Your task to perform on an android device: turn smart compose on in the gmail app Image 0: 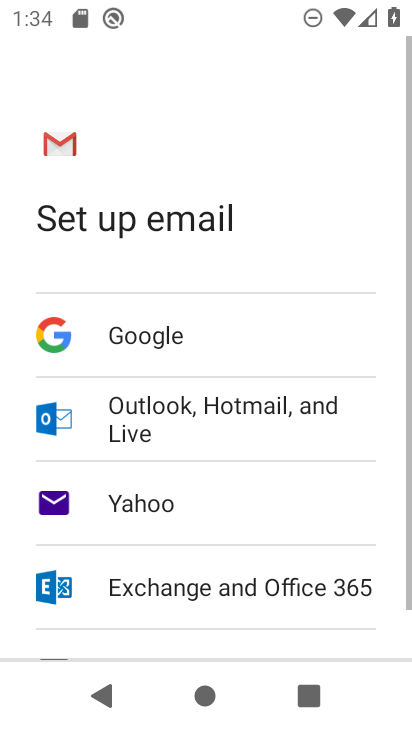
Step 0: press home button
Your task to perform on an android device: turn smart compose on in the gmail app Image 1: 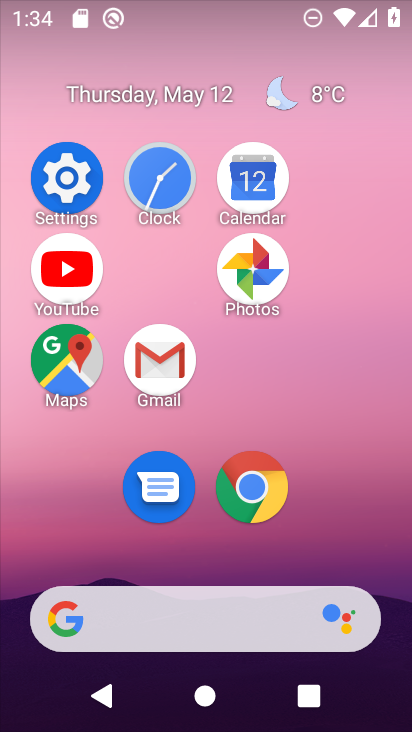
Step 1: click (148, 363)
Your task to perform on an android device: turn smart compose on in the gmail app Image 2: 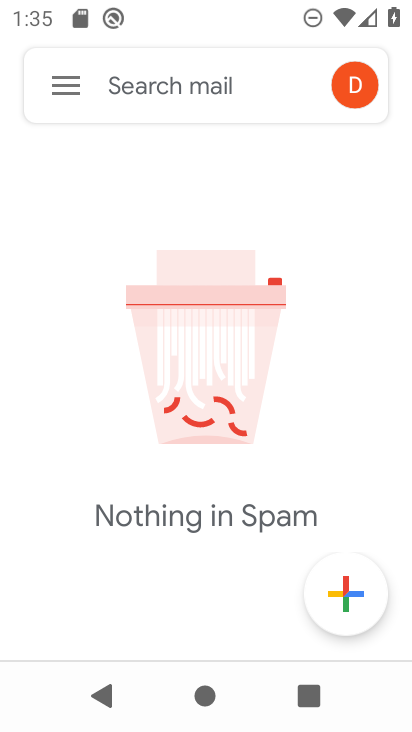
Step 2: click (36, 80)
Your task to perform on an android device: turn smart compose on in the gmail app Image 3: 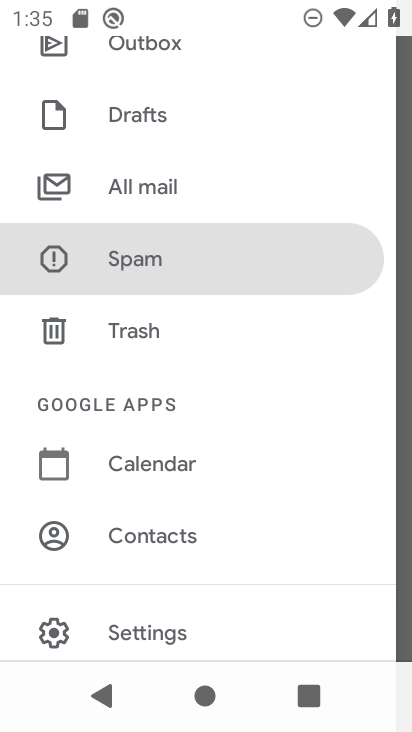
Step 3: click (209, 599)
Your task to perform on an android device: turn smart compose on in the gmail app Image 4: 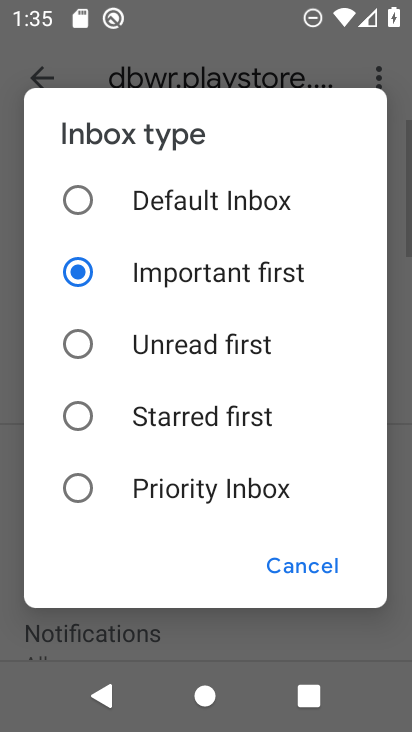
Step 4: click (290, 563)
Your task to perform on an android device: turn smart compose on in the gmail app Image 5: 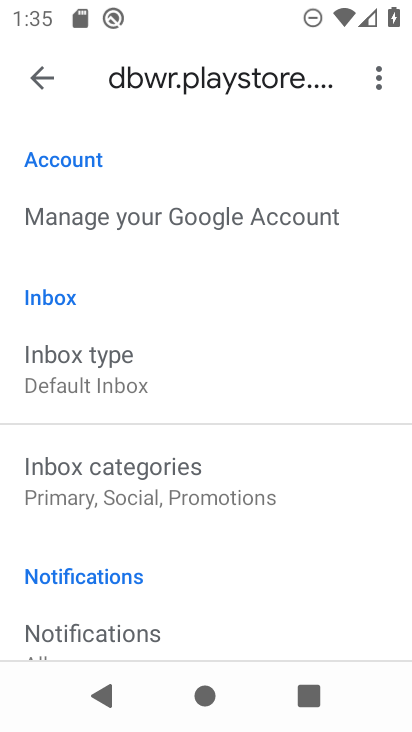
Step 5: task complete